Your task to perform on an android device: Is it going to rain today? Image 0: 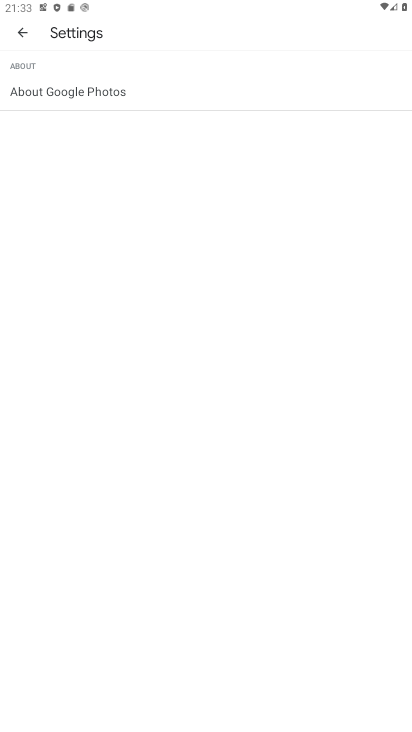
Step 0: press home button
Your task to perform on an android device: Is it going to rain today? Image 1: 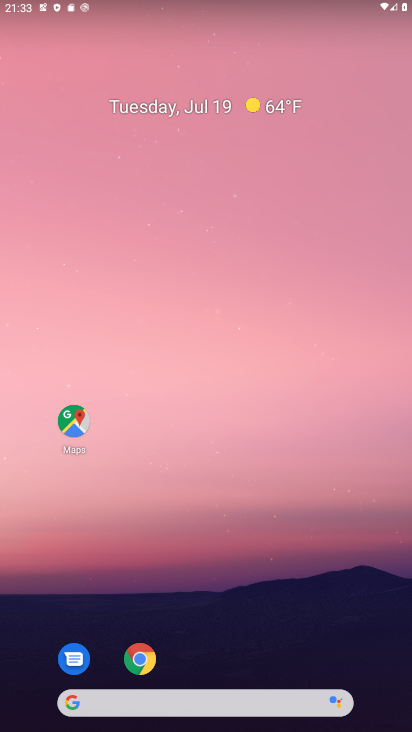
Step 1: click (239, 707)
Your task to perform on an android device: Is it going to rain today? Image 2: 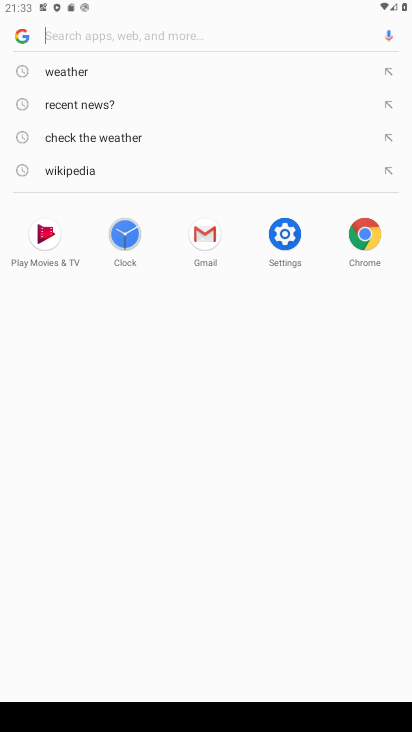
Step 2: click (82, 62)
Your task to perform on an android device: Is it going to rain today? Image 3: 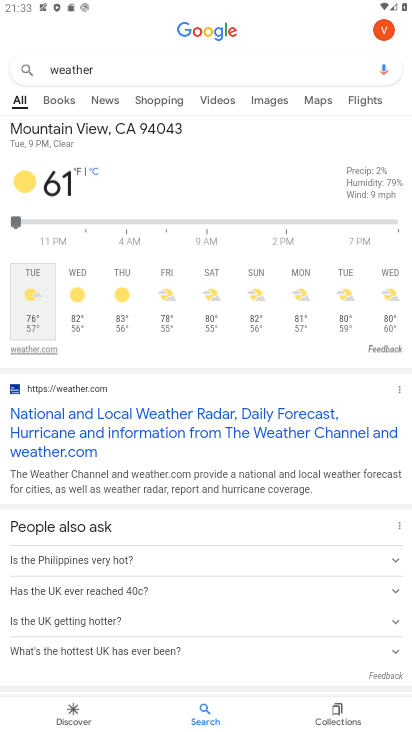
Step 3: task complete